Your task to perform on an android device: turn on bluetooth scan Image 0: 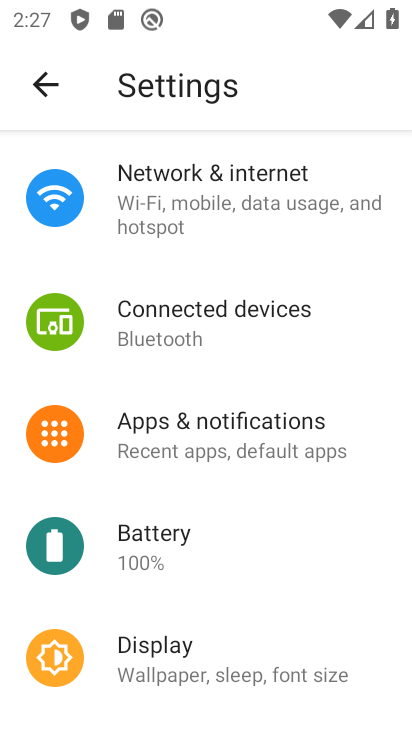
Step 0: click (264, 332)
Your task to perform on an android device: turn on bluetooth scan Image 1: 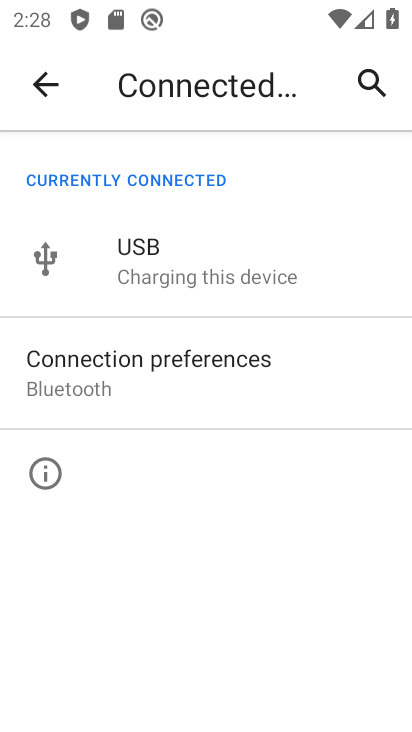
Step 1: click (226, 364)
Your task to perform on an android device: turn on bluetooth scan Image 2: 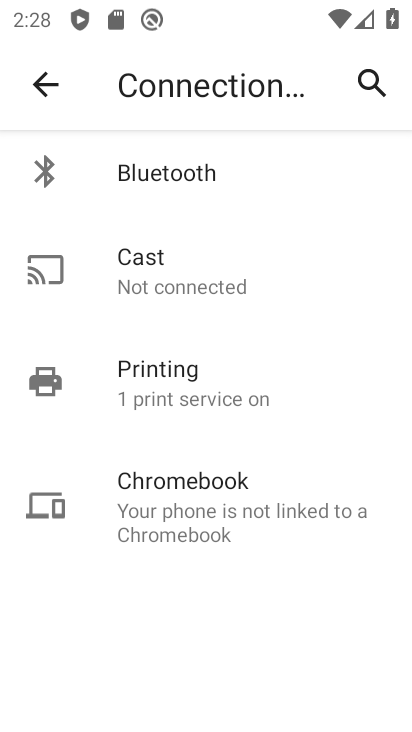
Step 2: click (228, 185)
Your task to perform on an android device: turn on bluetooth scan Image 3: 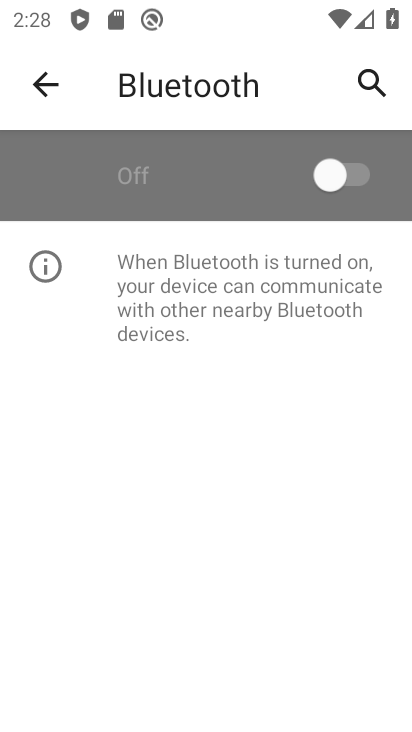
Step 3: click (228, 185)
Your task to perform on an android device: turn on bluetooth scan Image 4: 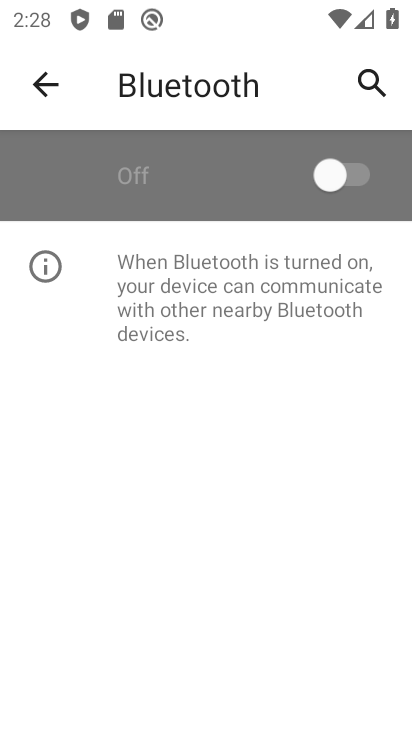
Step 4: click (360, 175)
Your task to perform on an android device: turn on bluetooth scan Image 5: 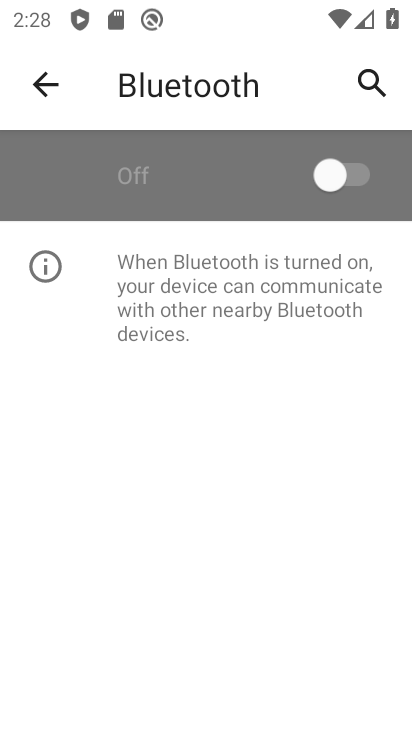
Step 5: click (362, 174)
Your task to perform on an android device: turn on bluetooth scan Image 6: 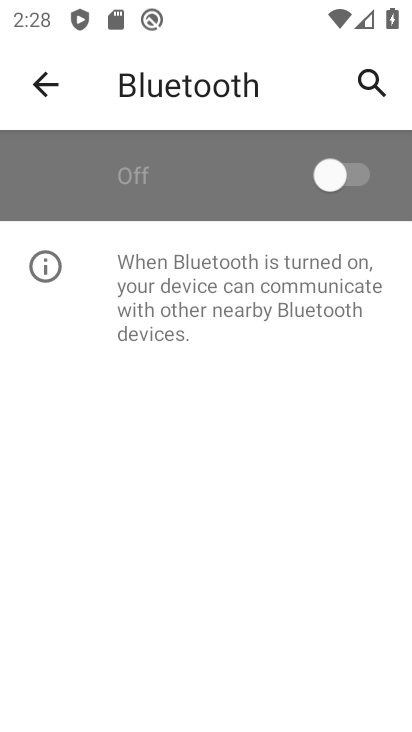
Step 6: click (357, 173)
Your task to perform on an android device: turn on bluetooth scan Image 7: 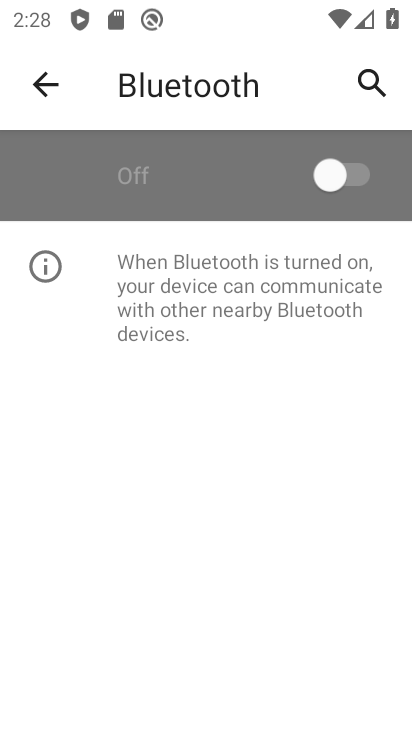
Step 7: task complete